Your task to perform on an android device: remove spam from my inbox in the gmail app Image 0: 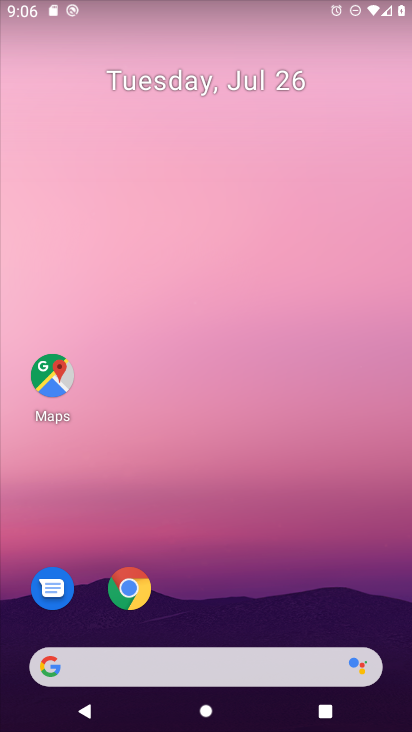
Step 0: drag from (179, 598) to (246, 121)
Your task to perform on an android device: remove spam from my inbox in the gmail app Image 1: 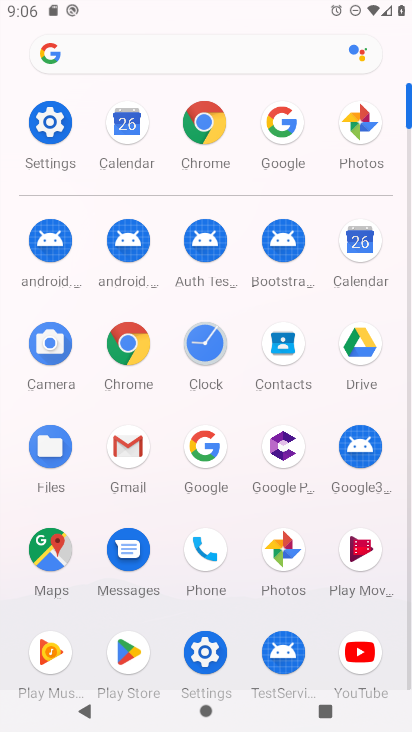
Step 1: click (134, 463)
Your task to perform on an android device: remove spam from my inbox in the gmail app Image 2: 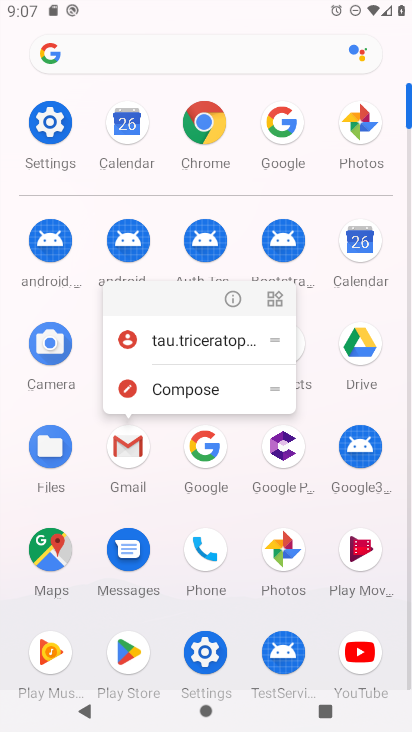
Step 2: click (130, 469)
Your task to perform on an android device: remove spam from my inbox in the gmail app Image 3: 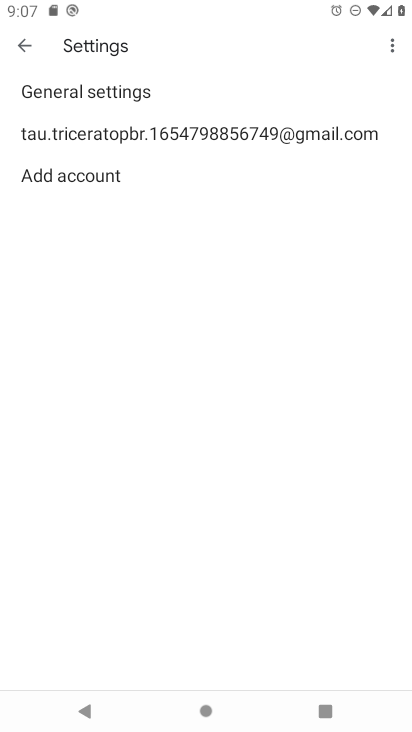
Step 3: click (30, 51)
Your task to perform on an android device: remove spam from my inbox in the gmail app Image 4: 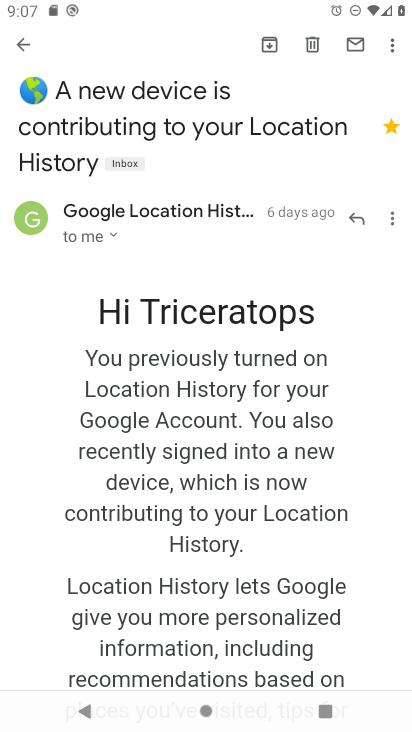
Step 4: click (19, 40)
Your task to perform on an android device: remove spam from my inbox in the gmail app Image 5: 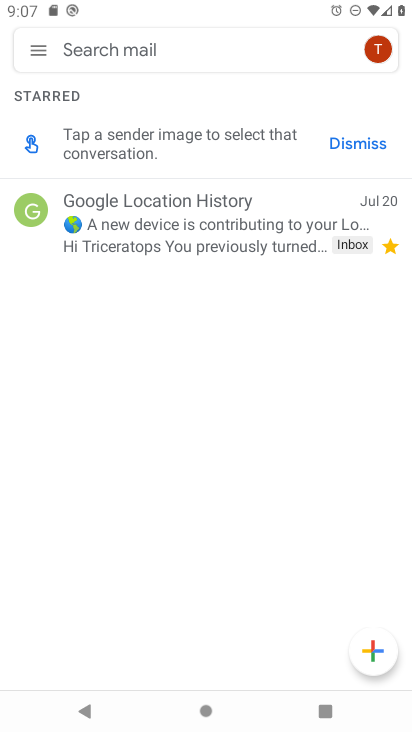
Step 5: click (50, 56)
Your task to perform on an android device: remove spam from my inbox in the gmail app Image 6: 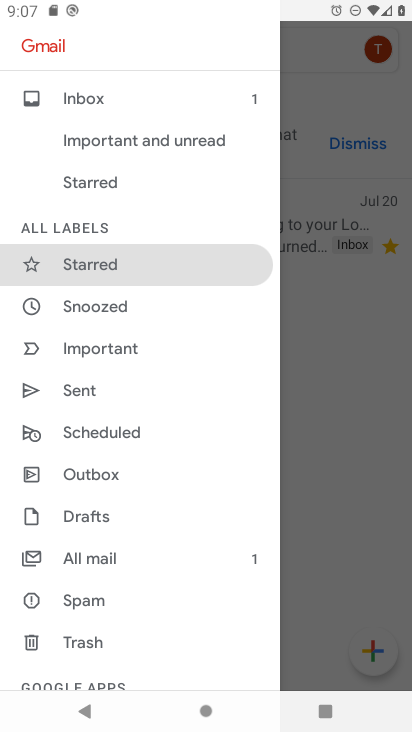
Step 6: click (92, 601)
Your task to perform on an android device: remove spam from my inbox in the gmail app Image 7: 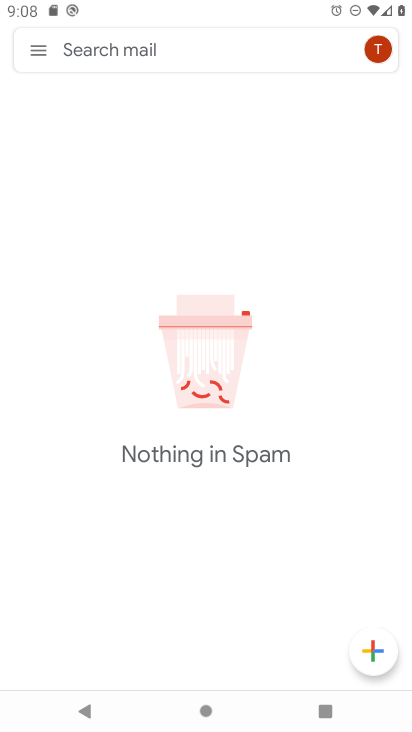
Step 7: task complete